Your task to perform on an android device: View the shopping cart on newegg.com. Image 0: 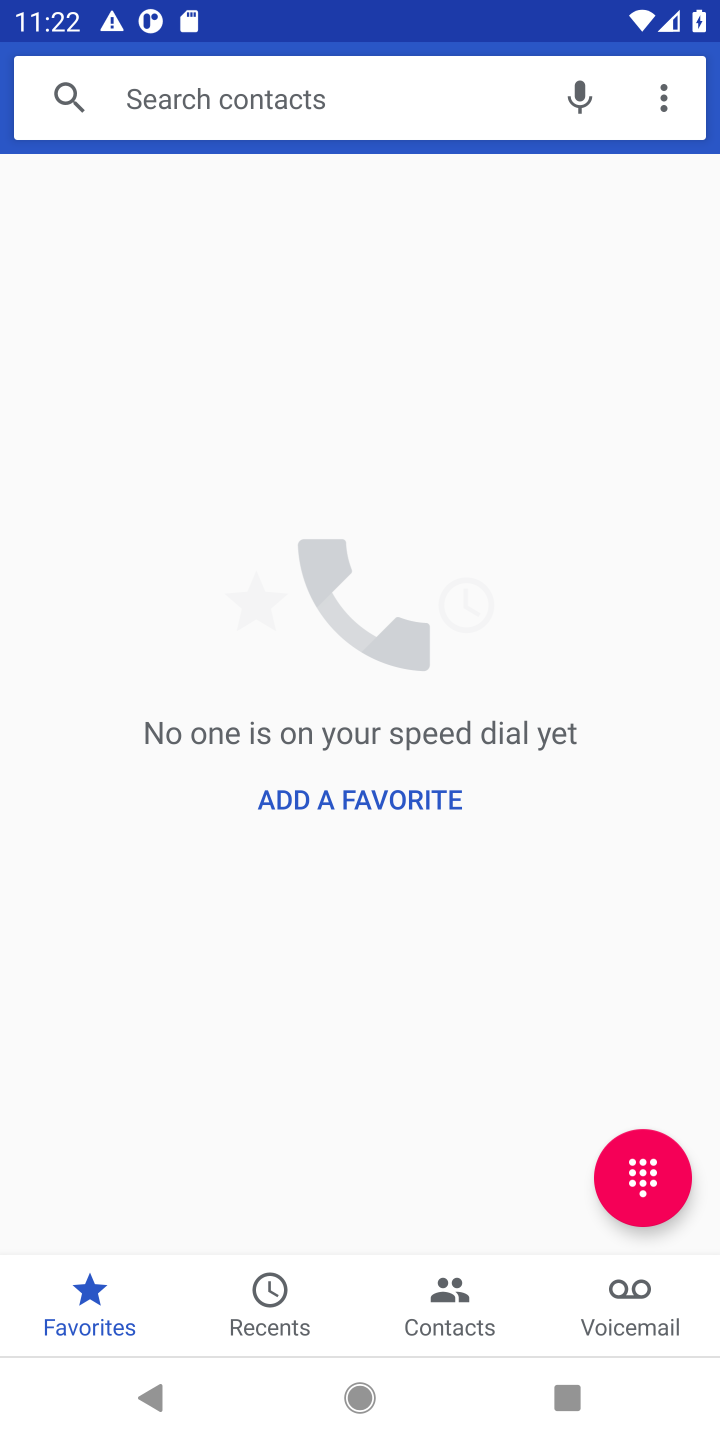
Step 0: press home button
Your task to perform on an android device: View the shopping cart on newegg.com. Image 1: 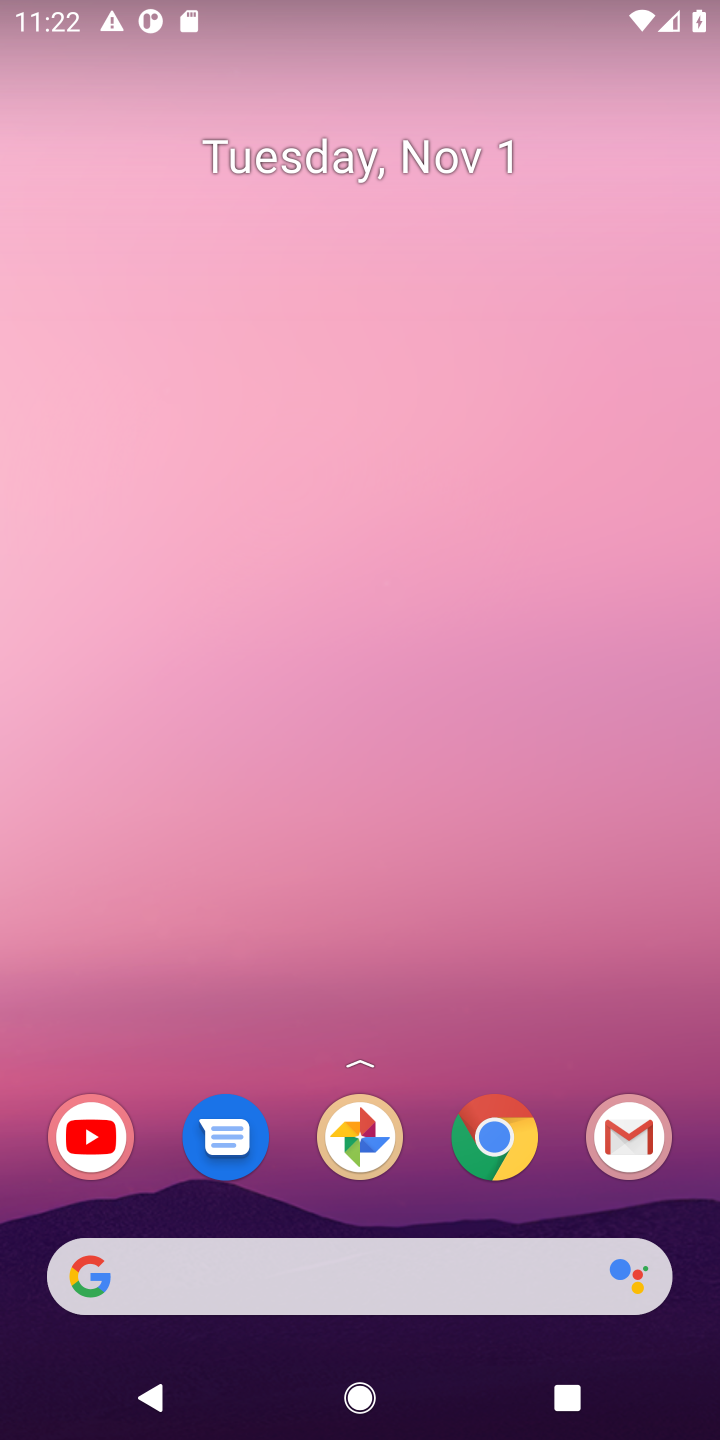
Step 1: click (321, 1258)
Your task to perform on an android device: View the shopping cart on newegg.com. Image 2: 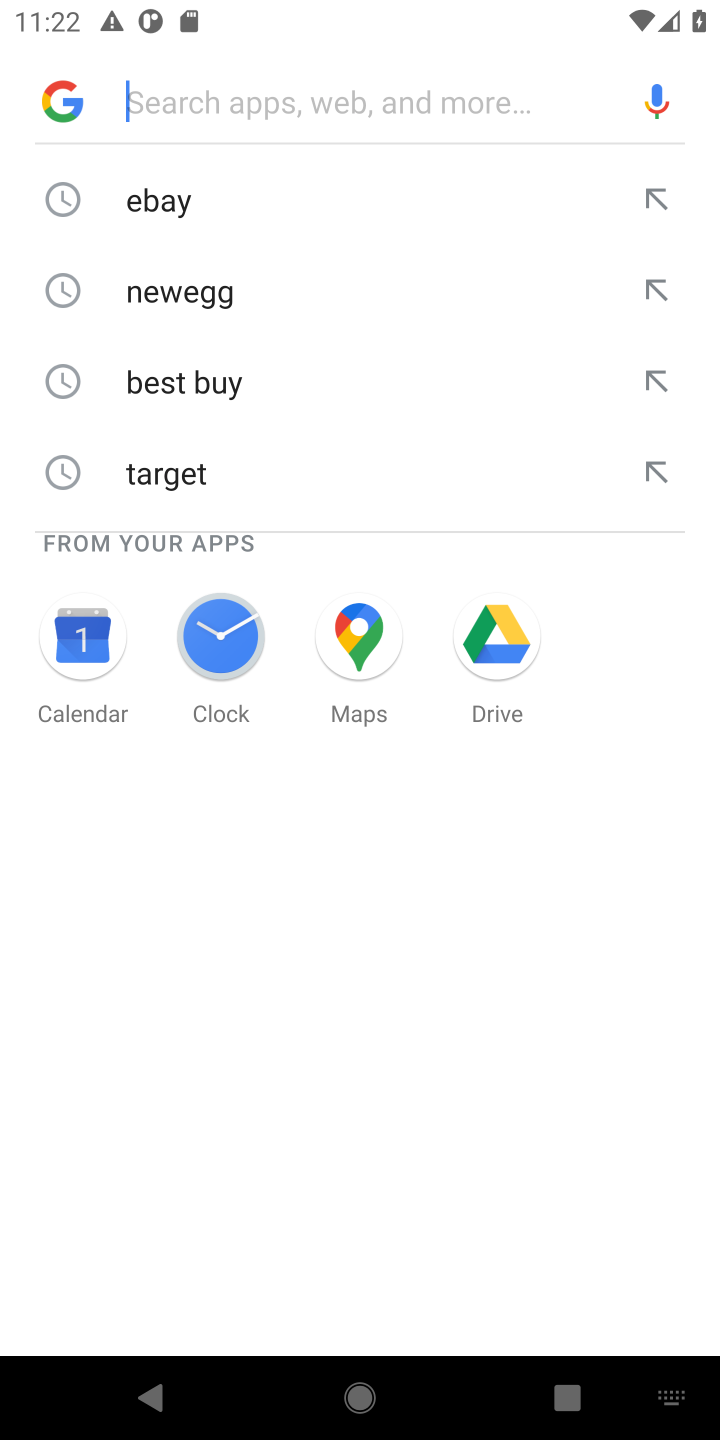
Step 2: type "newegg.com"
Your task to perform on an android device: View the shopping cart on newegg.com. Image 3: 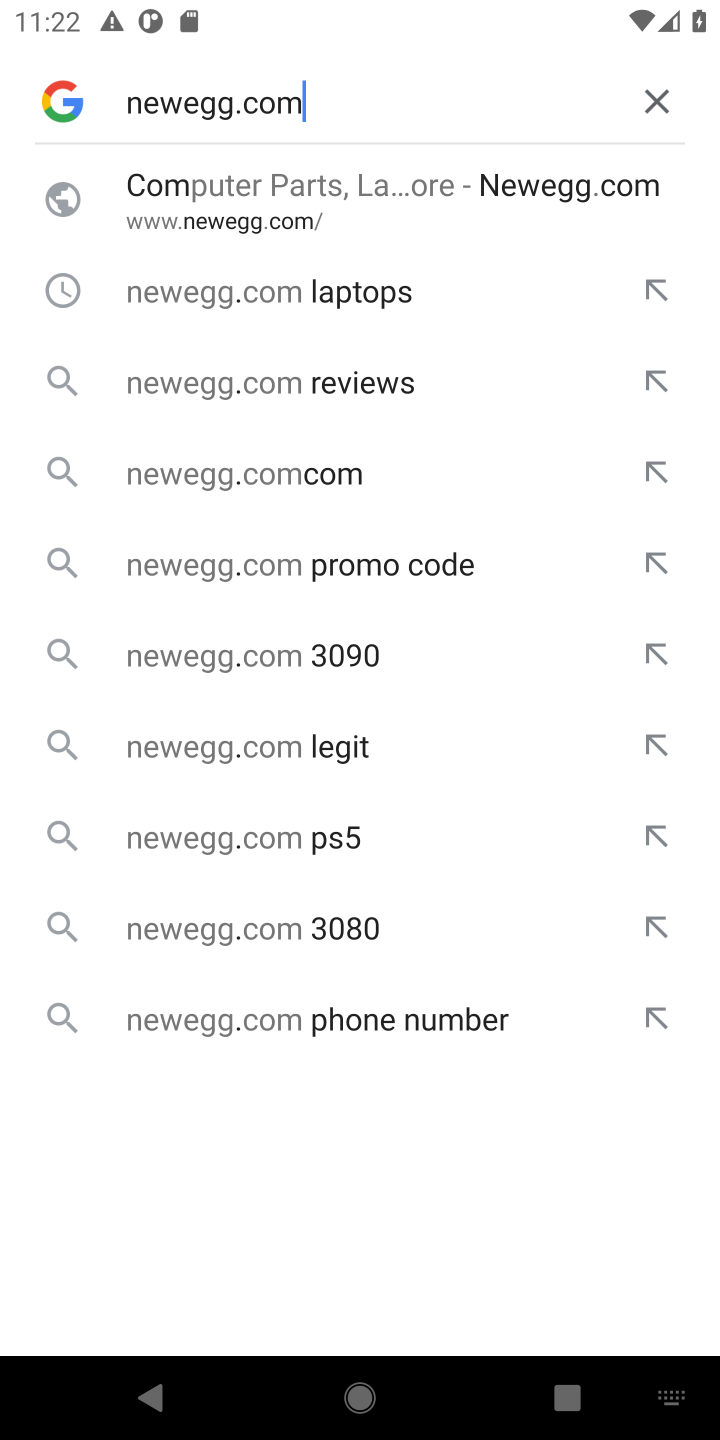
Step 3: click (290, 224)
Your task to perform on an android device: View the shopping cart on newegg.com. Image 4: 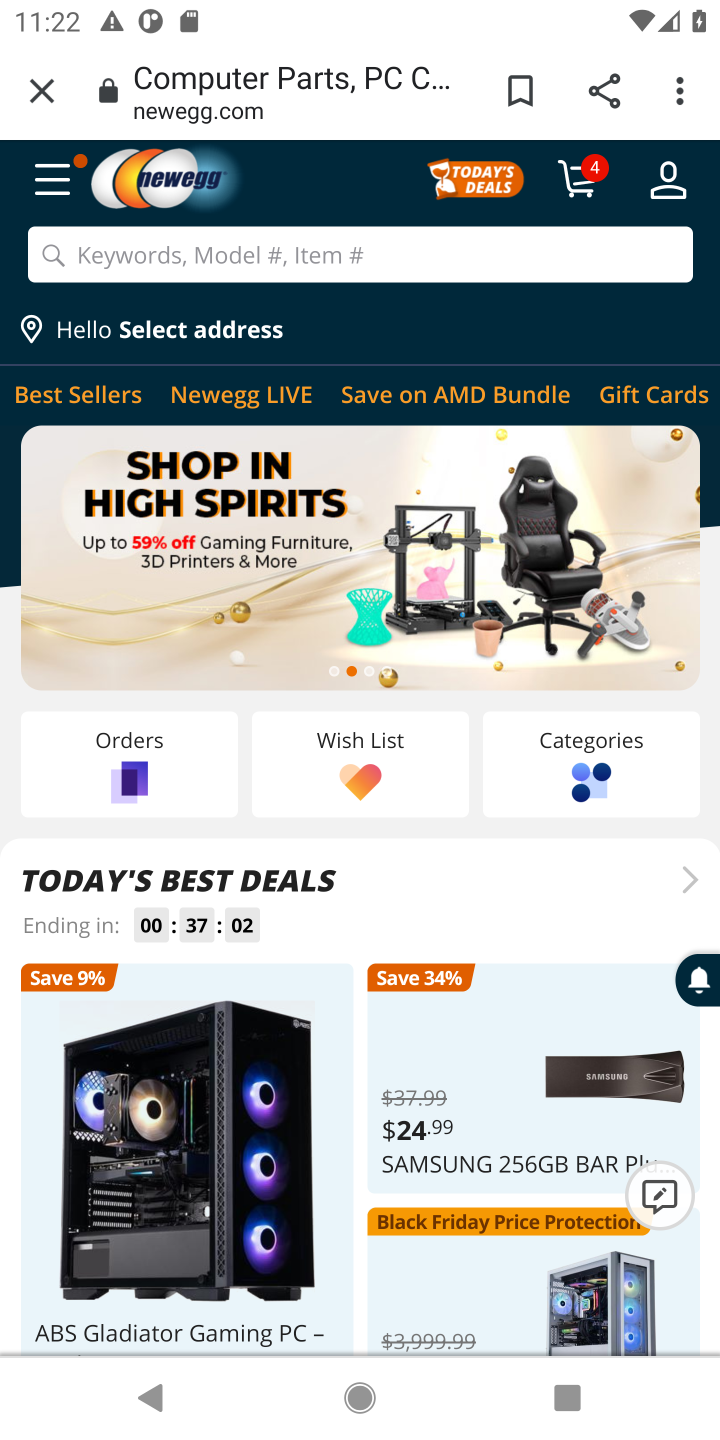
Step 4: click (598, 182)
Your task to perform on an android device: View the shopping cart on newegg.com. Image 5: 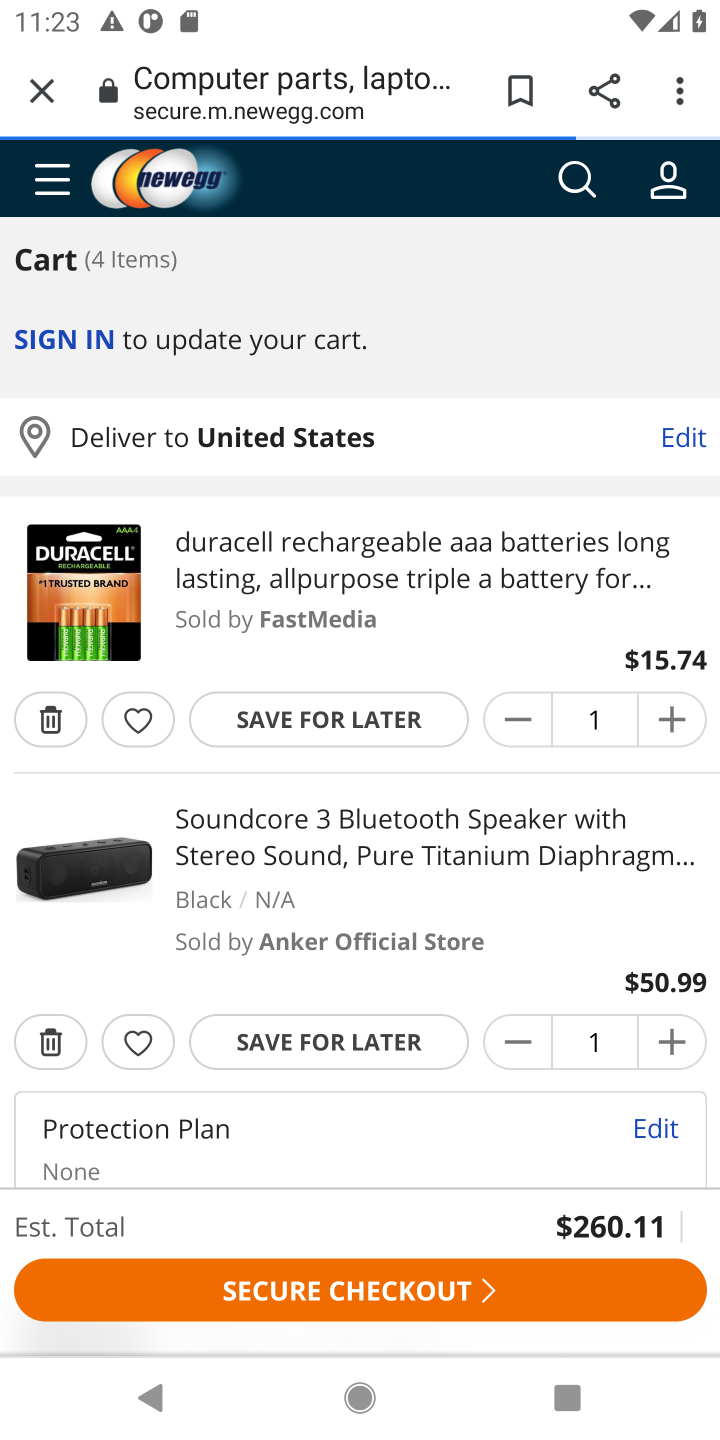
Step 5: task complete